Your task to perform on an android device: Go to Google Image 0: 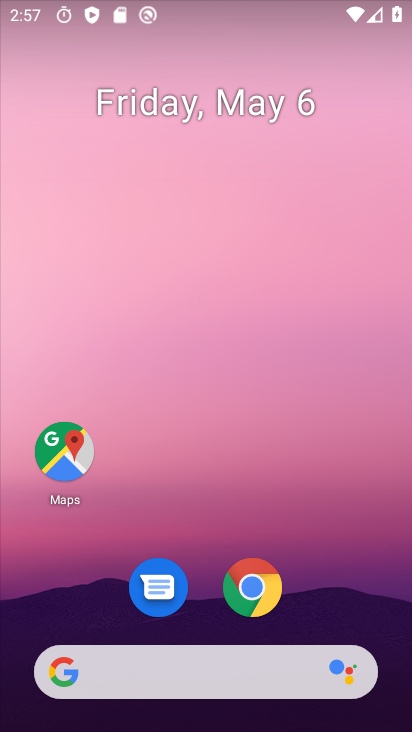
Step 0: click (61, 672)
Your task to perform on an android device: Go to Google Image 1: 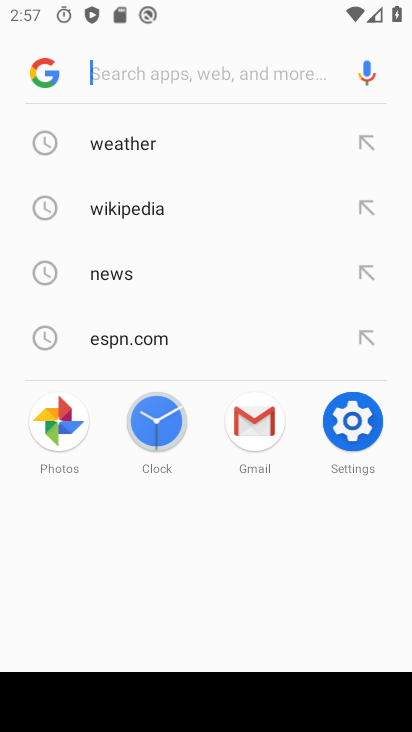
Step 1: click (38, 70)
Your task to perform on an android device: Go to Google Image 2: 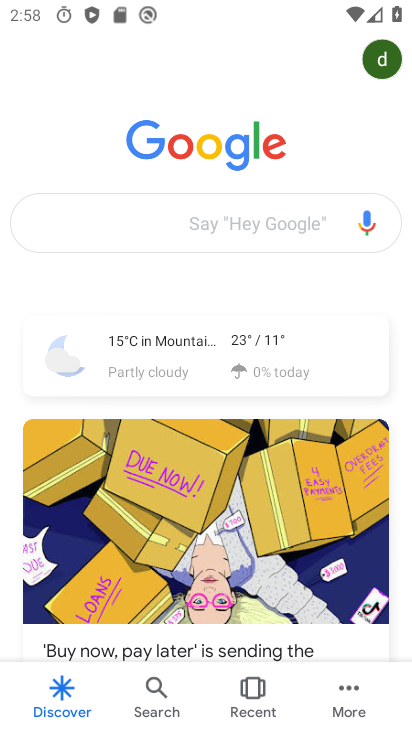
Step 2: task complete